Your task to perform on an android device: set default search engine in the chrome app Image 0: 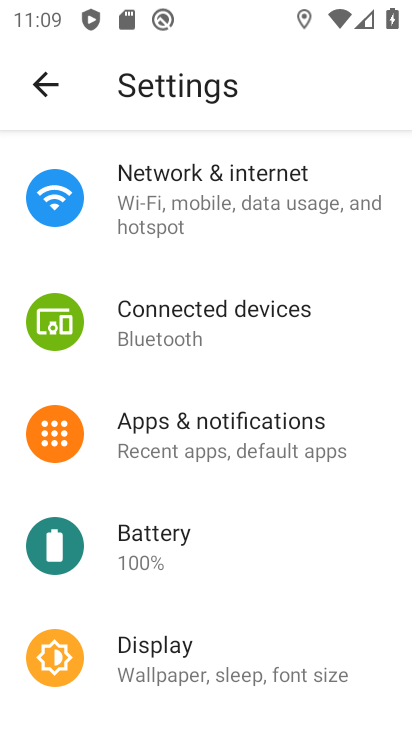
Step 0: press home button
Your task to perform on an android device: set default search engine in the chrome app Image 1: 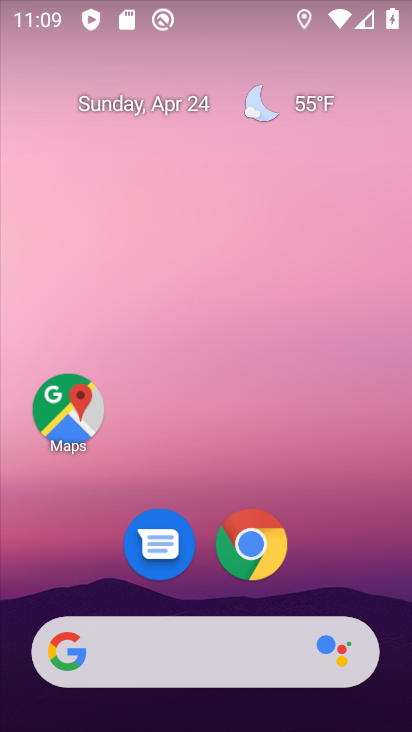
Step 1: click (224, 538)
Your task to perform on an android device: set default search engine in the chrome app Image 2: 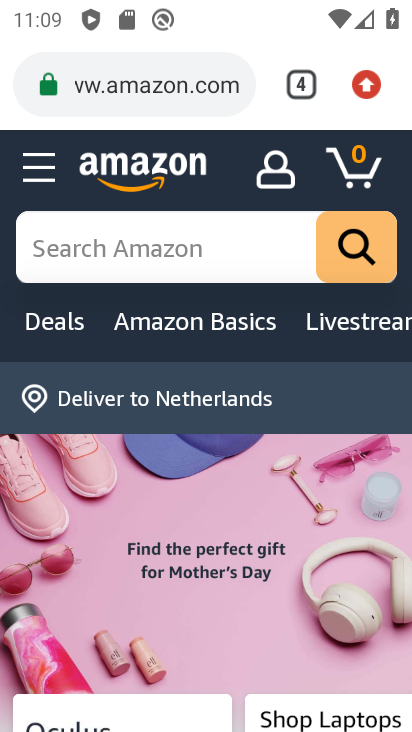
Step 2: drag from (365, 78) to (121, 589)
Your task to perform on an android device: set default search engine in the chrome app Image 3: 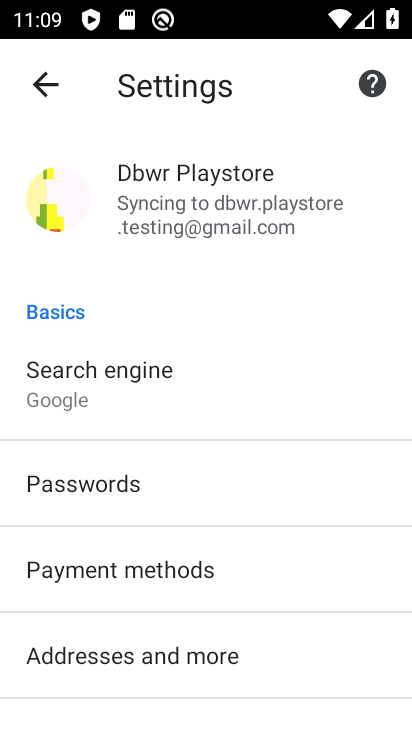
Step 3: click (98, 377)
Your task to perform on an android device: set default search engine in the chrome app Image 4: 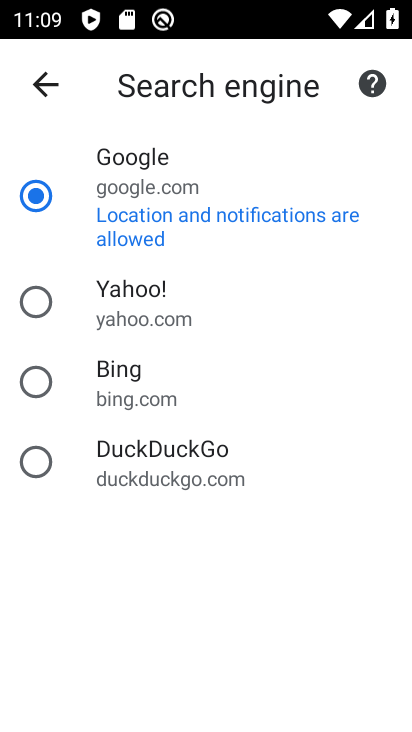
Step 4: click (37, 467)
Your task to perform on an android device: set default search engine in the chrome app Image 5: 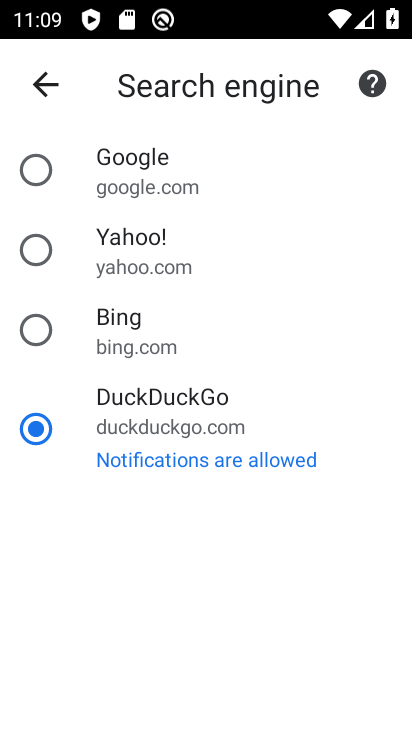
Step 5: task complete